Your task to perform on an android device: What is the news today? Image 0: 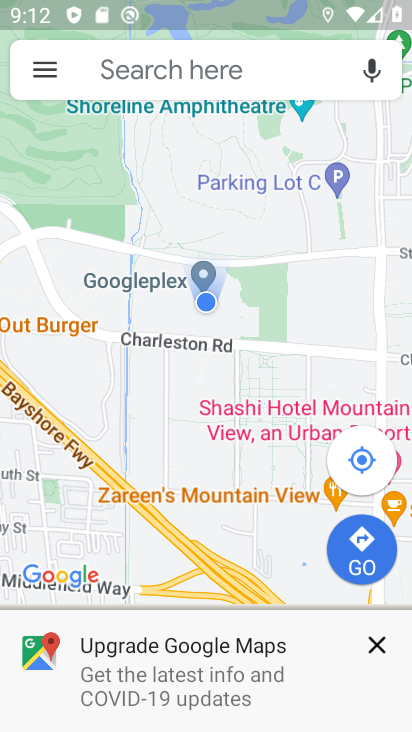
Step 0: press home button
Your task to perform on an android device: What is the news today? Image 1: 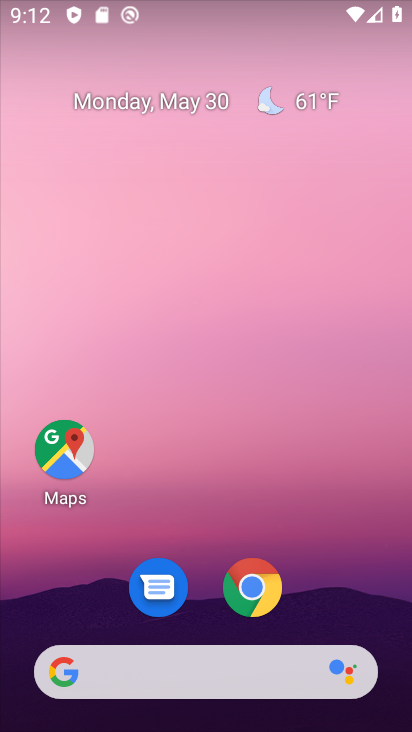
Step 1: click (216, 664)
Your task to perform on an android device: What is the news today? Image 2: 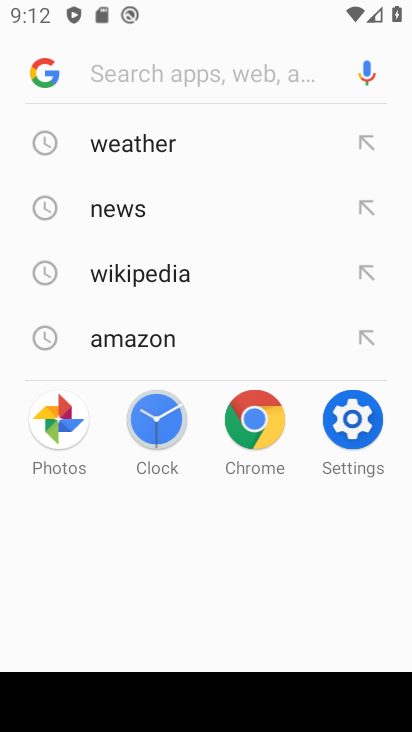
Step 2: click (143, 208)
Your task to perform on an android device: What is the news today? Image 3: 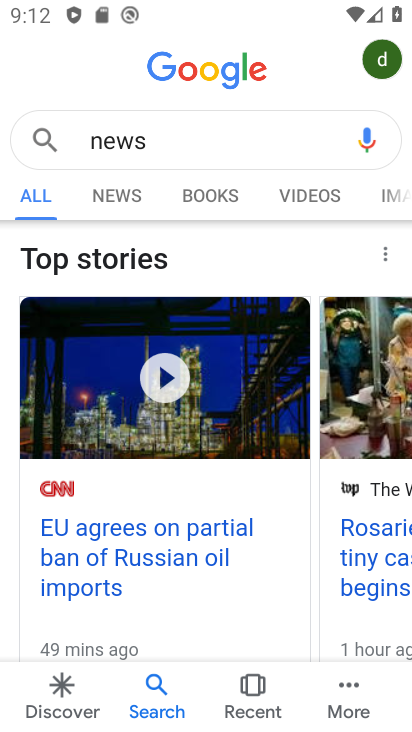
Step 3: click (82, 207)
Your task to perform on an android device: What is the news today? Image 4: 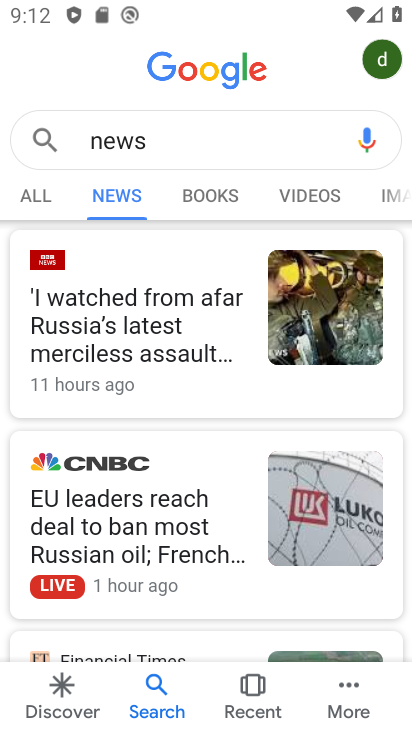
Step 4: task complete